Your task to perform on an android device: toggle location history Image 0: 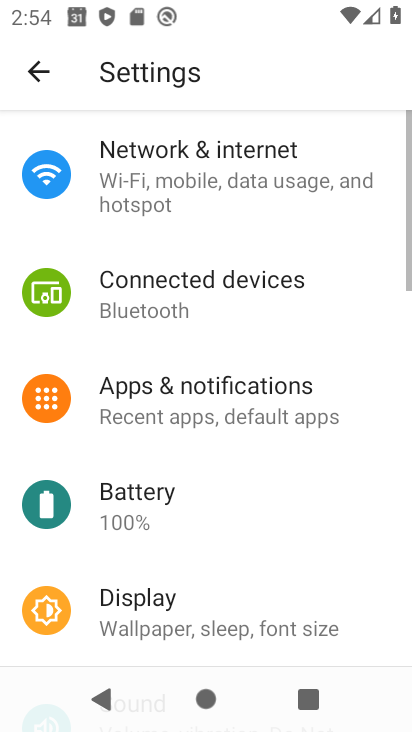
Step 0: press home button
Your task to perform on an android device: toggle location history Image 1: 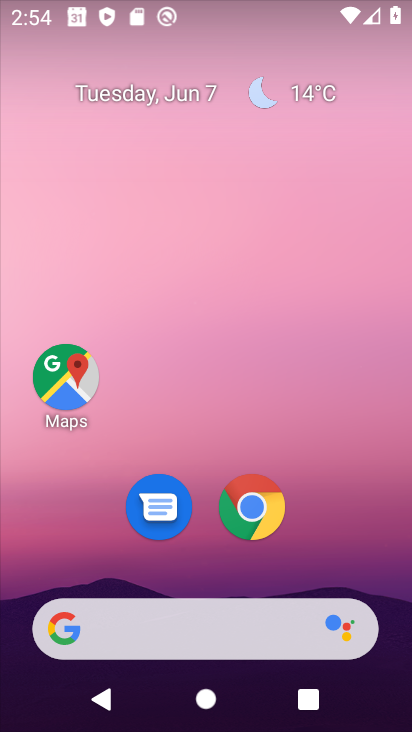
Step 1: drag from (372, 482) to (320, 142)
Your task to perform on an android device: toggle location history Image 2: 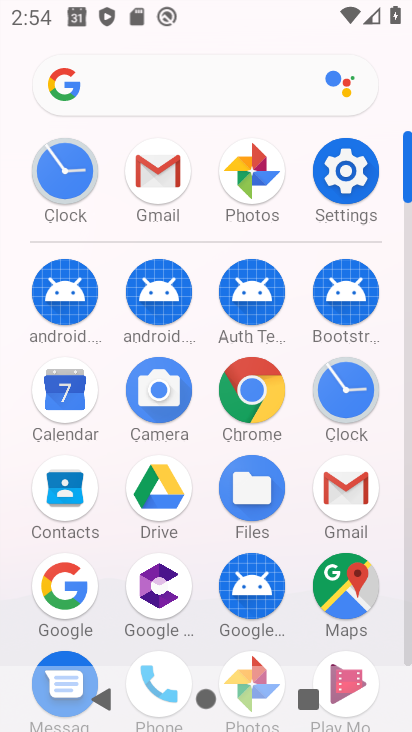
Step 2: click (350, 165)
Your task to perform on an android device: toggle location history Image 3: 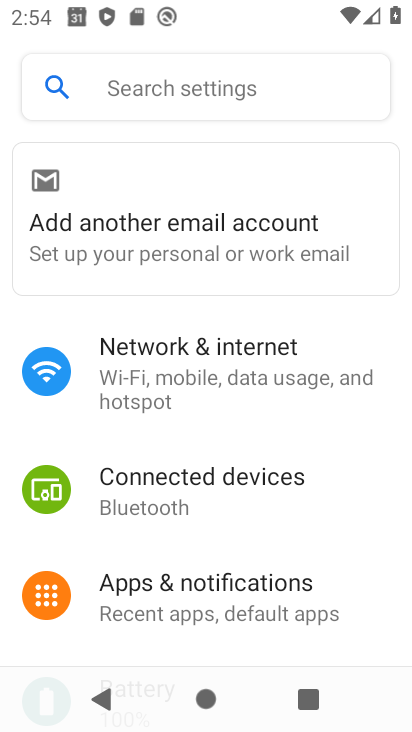
Step 3: drag from (218, 444) to (325, 14)
Your task to perform on an android device: toggle location history Image 4: 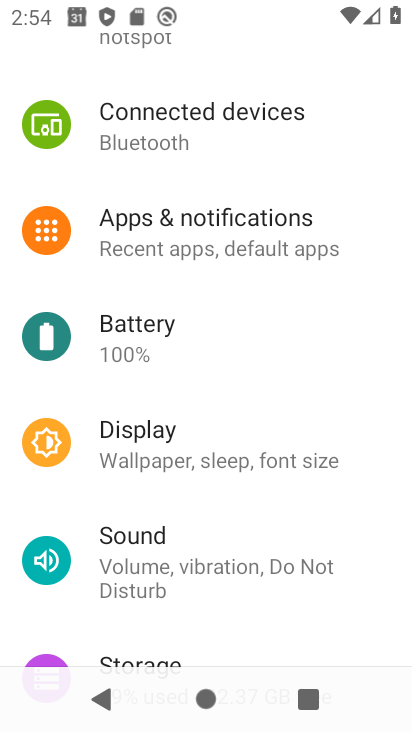
Step 4: drag from (230, 401) to (314, 78)
Your task to perform on an android device: toggle location history Image 5: 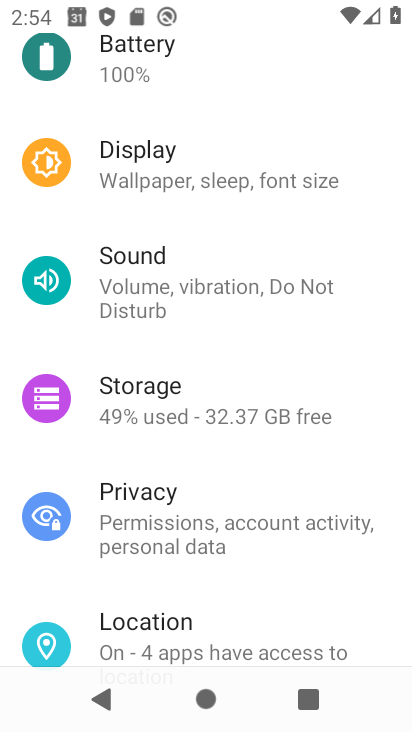
Step 5: click (169, 626)
Your task to perform on an android device: toggle location history Image 6: 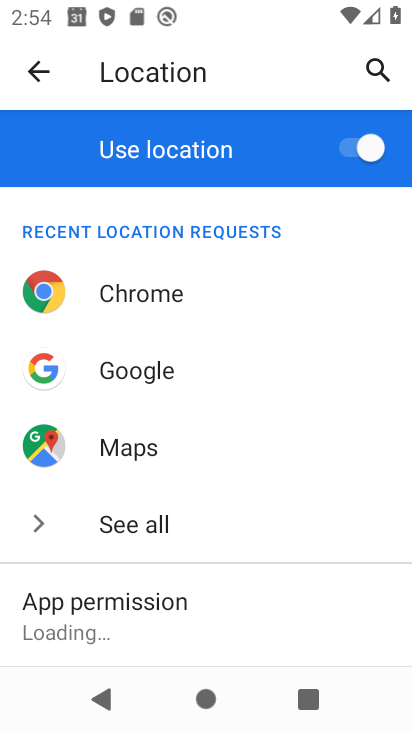
Step 6: drag from (233, 571) to (303, 137)
Your task to perform on an android device: toggle location history Image 7: 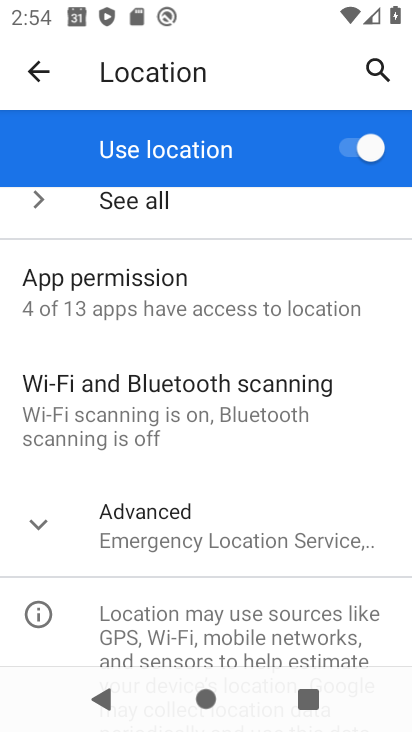
Step 7: click (188, 551)
Your task to perform on an android device: toggle location history Image 8: 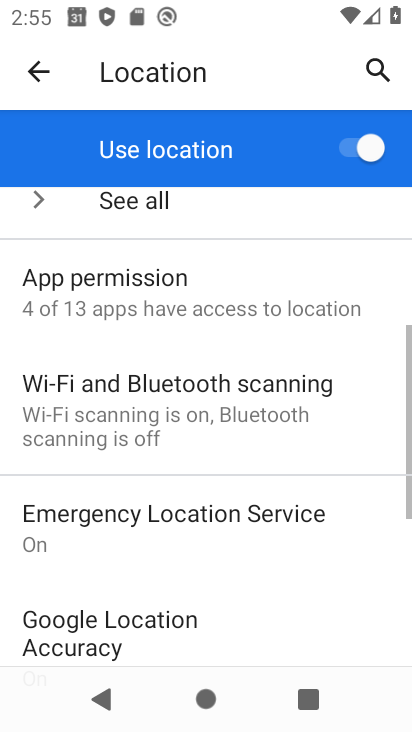
Step 8: drag from (312, 616) to (363, 188)
Your task to perform on an android device: toggle location history Image 9: 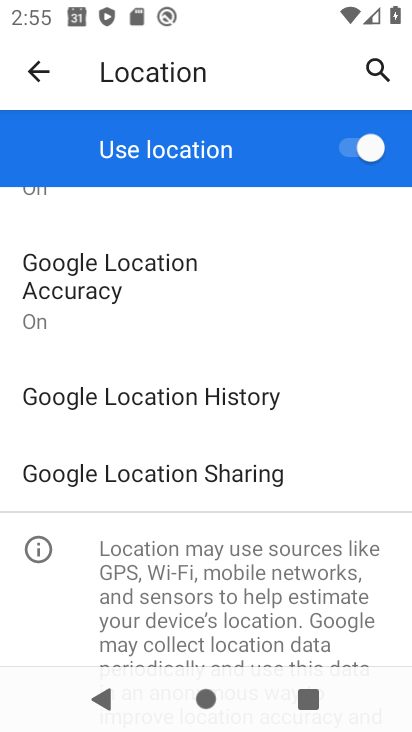
Step 9: click (229, 414)
Your task to perform on an android device: toggle location history Image 10: 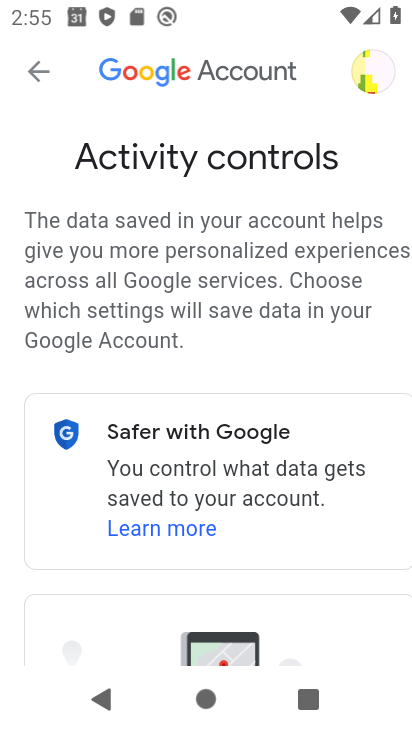
Step 10: drag from (271, 576) to (324, 88)
Your task to perform on an android device: toggle location history Image 11: 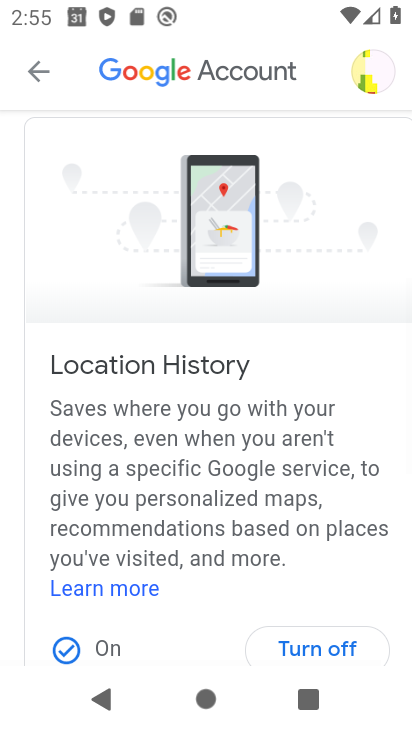
Step 11: drag from (267, 518) to (336, 158)
Your task to perform on an android device: toggle location history Image 12: 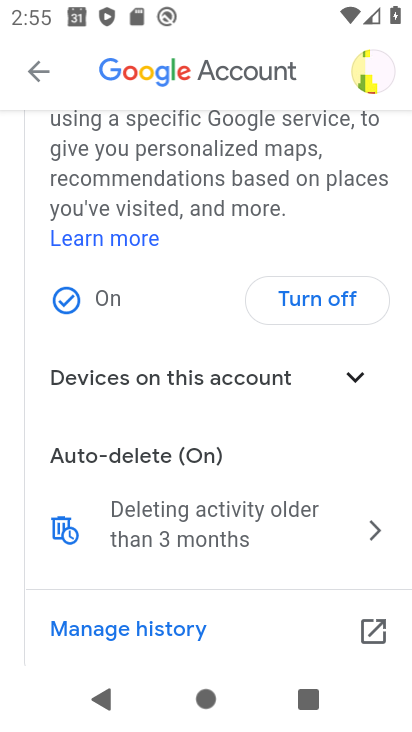
Step 12: click (336, 300)
Your task to perform on an android device: toggle location history Image 13: 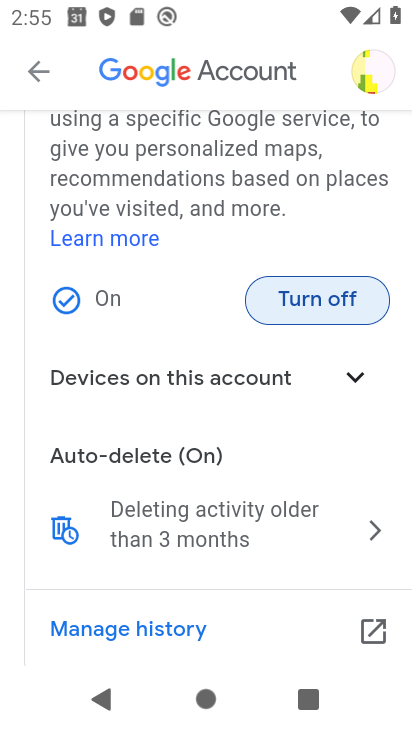
Step 13: click (339, 304)
Your task to perform on an android device: toggle location history Image 14: 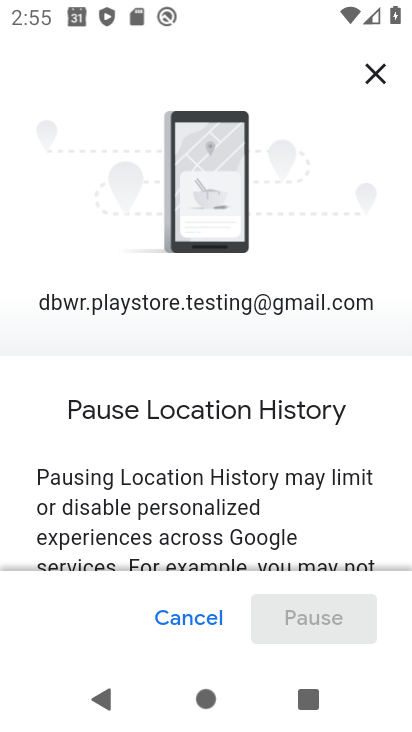
Step 14: drag from (273, 493) to (320, 132)
Your task to perform on an android device: toggle location history Image 15: 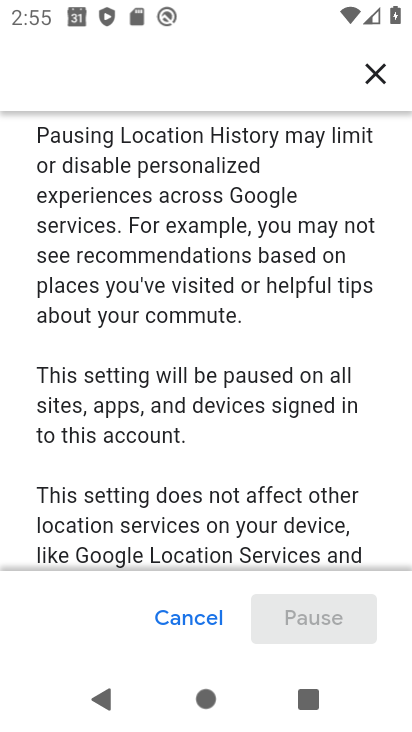
Step 15: click (322, 123)
Your task to perform on an android device: toggle location history Image 16: 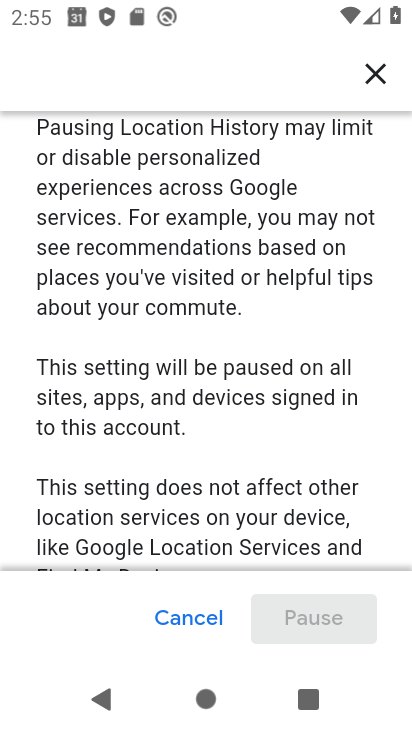
Step 16: drag from (267, 472) to (313, 119)
Your task to perform on an android device: toggle location history Image 17: 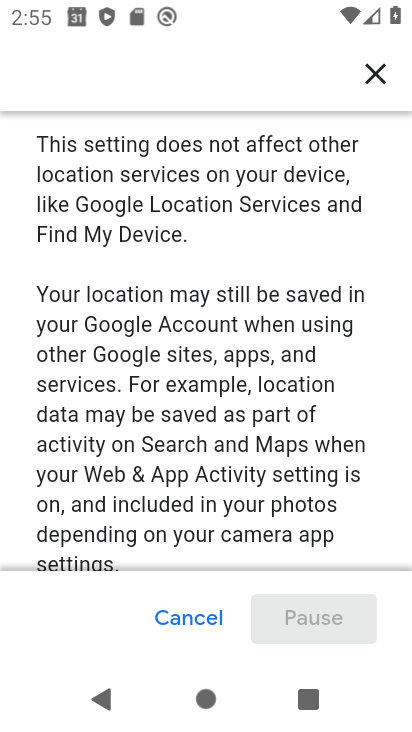
Step 17: drag from (276, 464) to (334, 134)
Your task to perform on an android device: toggle location history Image 18: 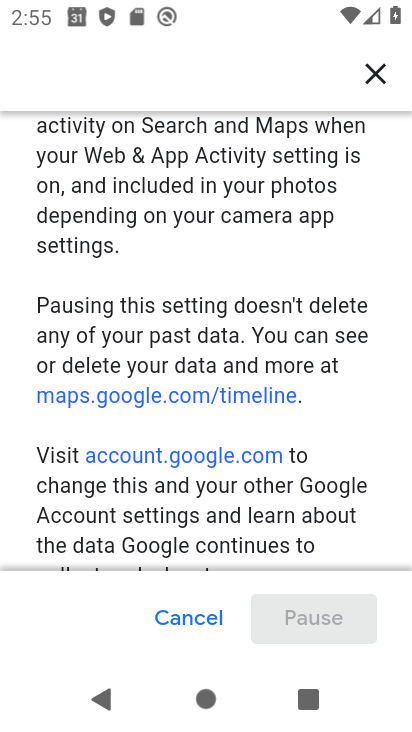
Step 18: drag from (317, 467) to (350, 174)
Your task to perform on an android device: toggle location history Image 19: 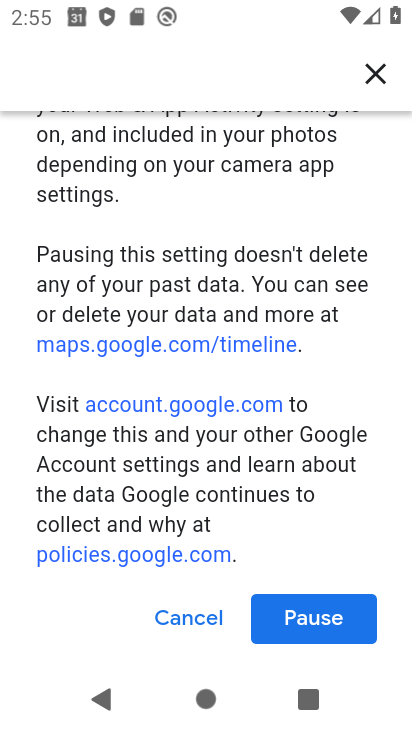
Step 19: click (314, 625)
Your task to perform on an android device: toggle location history Image 20: 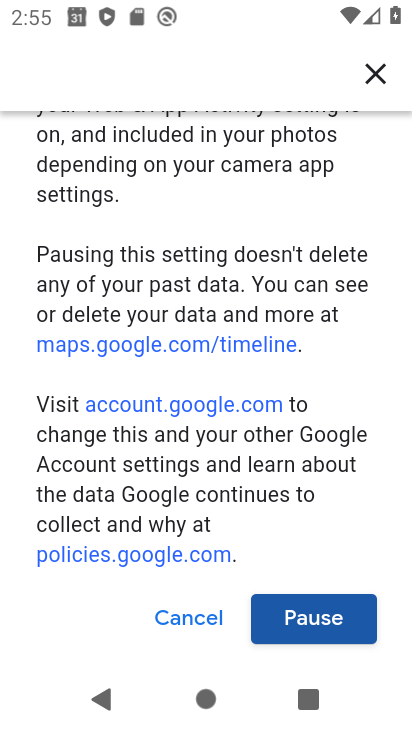
Step 20: click (314, 619)
Your task to perform on an android device: toggle location history Image 21: 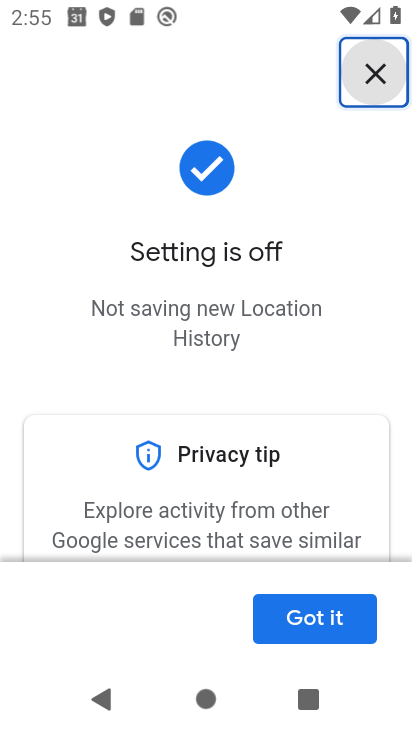
Step 21: task complete